Your task to perform on an android device: turn off priority inbox in the gmail app Image 0: 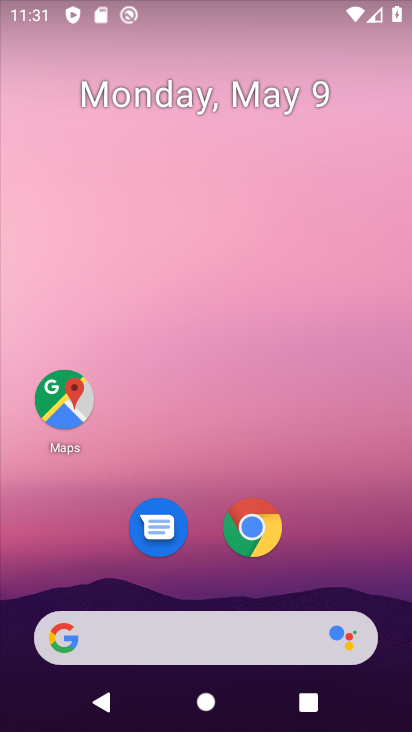
Step 0: drag from (177, 585) to (394, 30)
Your task to perform on an android device: turn off priority inbox in the gmail app Image 1: 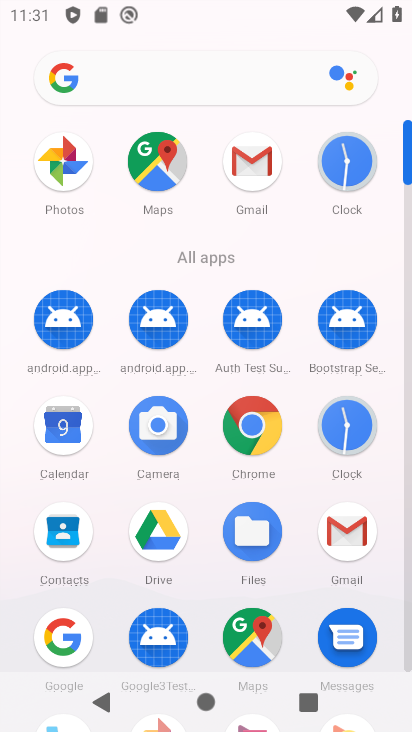
Step 1: click (257, 169)
Your task to perform on an android device: turn off priority inbox in the gmail app Image 2: 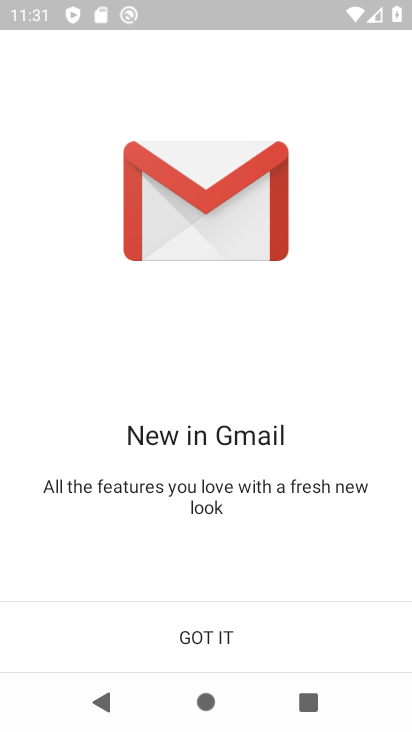
Step 2: click (205, 640)
Your task to perform on an android device: turn off priority inbox in the gmail app Image 3: 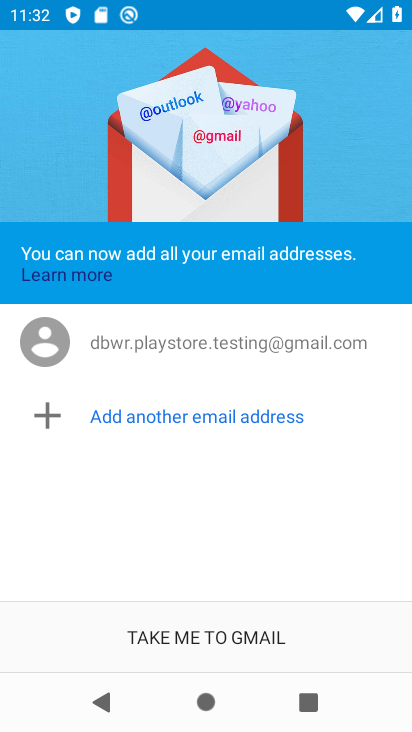
Step 3: click (223, 617)
Your task to perform on an android device: turn off priority inbox in the gmail app Image 4: 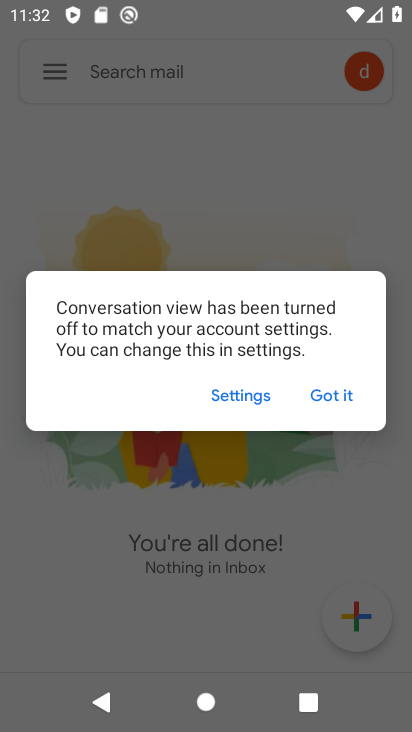
Step 4: click (319, 387)
Your task to perform on an android device: turn off priority inbox in the gmail app Image 5: 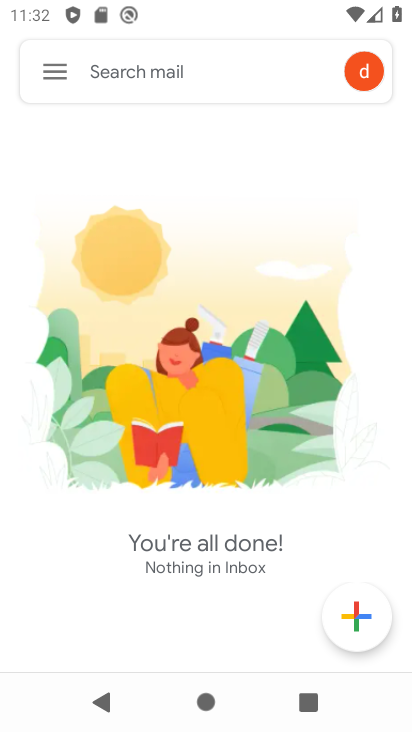
Step 5: click (44, 68)
Your task to perform on an android device: turn off priority inbox in the gmail app Image 6: 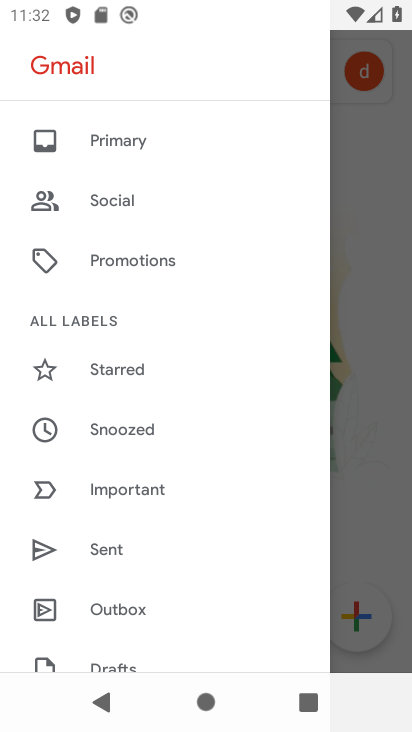
Step 6: drag from (157, 603) to (119, 110)
Your task to perform on an android device: turn off priority inbox in the gmail app Image 7: 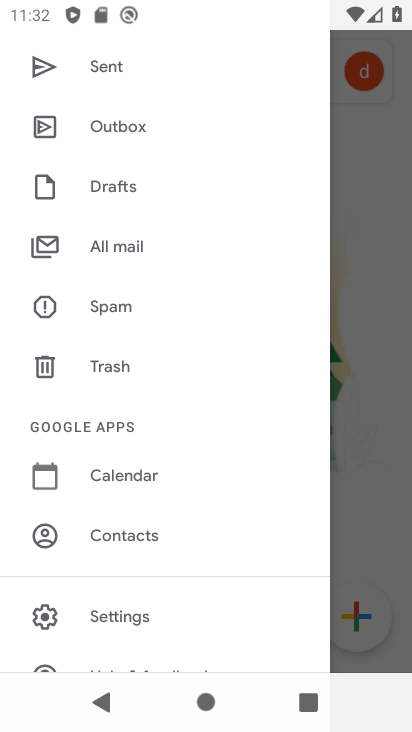
Step 7: click (124, 636)
Your task to perform on an android device: turn off priority inbox in the gmail app Image 8: 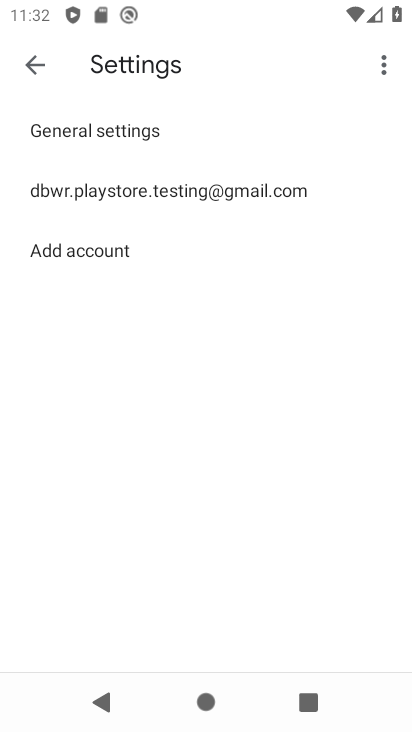
Step 8: click (112, 198)
Your task to perform on an android device: turn off priority inbox in the gmail app Image 9: 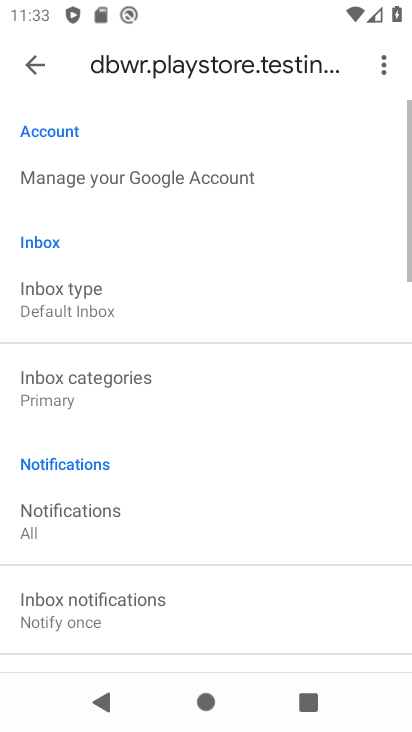
Step 9: click (73, 307)
Your task to perform on an android device: turn off priority inbox in the gmail app Image 10: 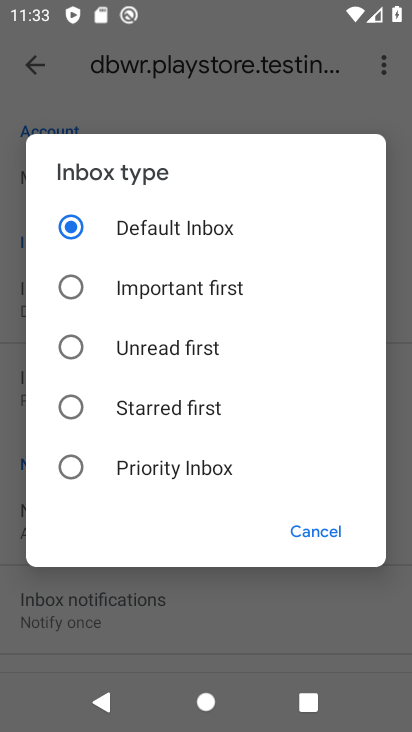
Step 10: task complete